Your task to perform on an android device: Open calendar and show me the first week of next month Image 0: 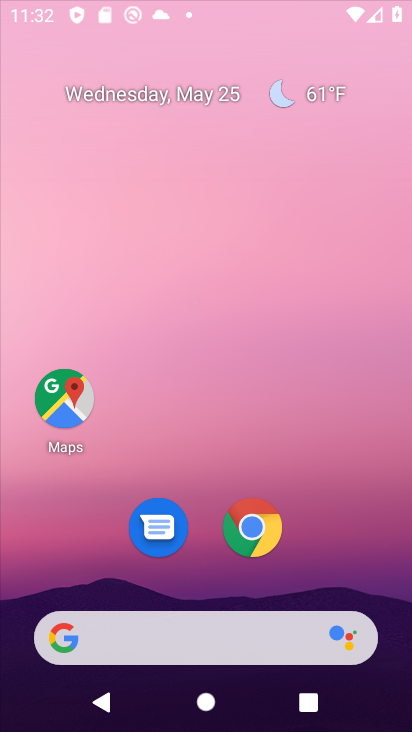
Step 0: click (201, 284)
Your task to perform on an android device: Open calendar and show me the first week of next month Image 1: 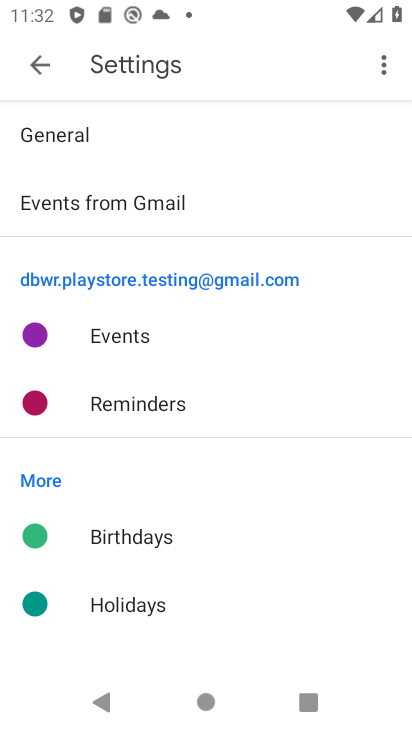
Step 1: click (40, 50)
Your task to perform on an android device: Open calendar and show me the first week of next month Image 2: 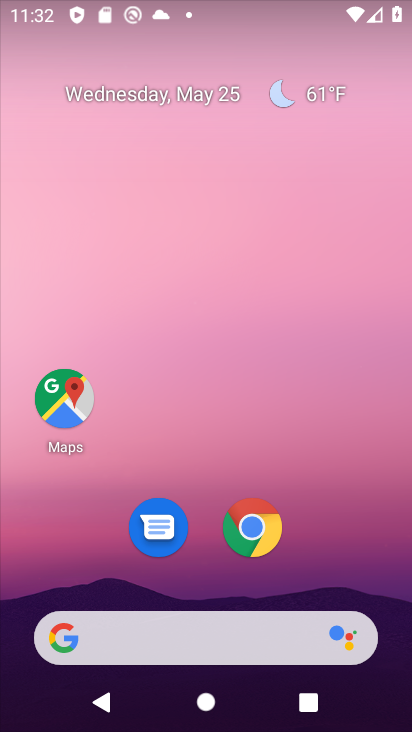
Step 2: drag from (267, 704) to (248, 257)
Your task to perform on an android device: Open calendar and show me the first week of next month Image 3: 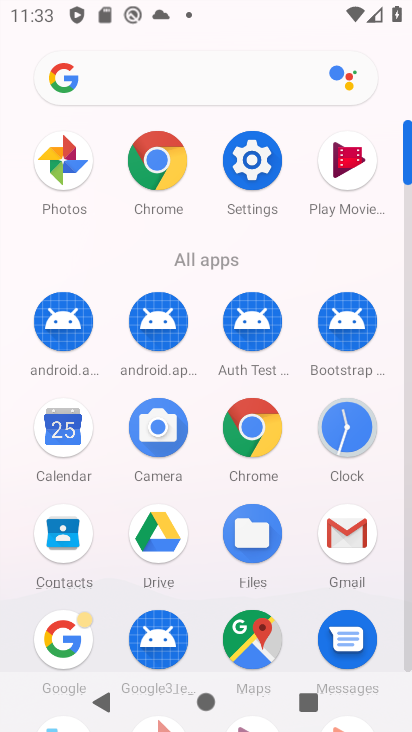
Step 3: click (82, 431)
Your task to perform on an android device: Open calendar and show me the first week of next month Image 4: 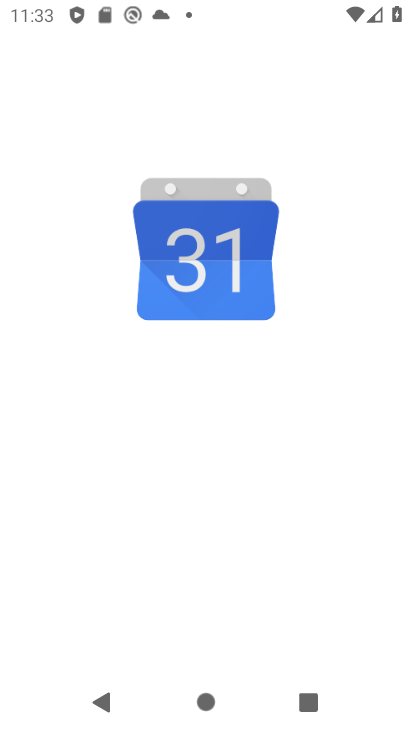
Step 4: click (80, 428)
Your task to perform on an android device: Open calendar and show me the first week of next month Image 5: 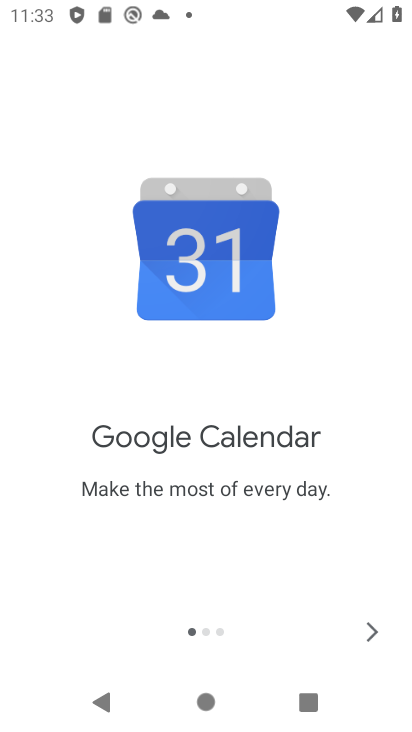
Step 5: click (79, 428)
Your task to perform on an android device: Open calendar and show me the first week of next month Image 6: 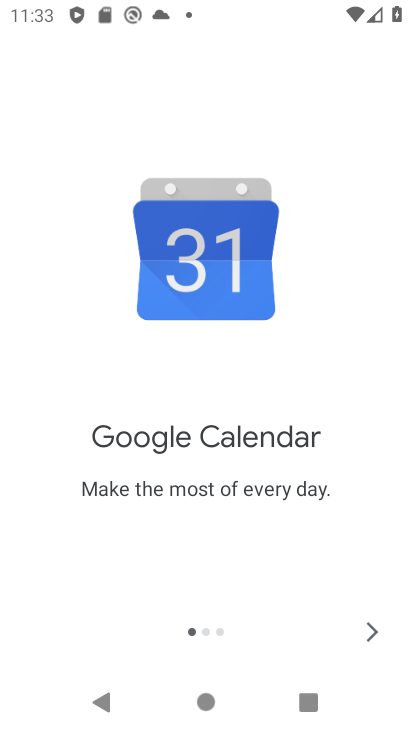
Step 6: click (72, 427)
Your task to perform on an android device: Open calendar and show me the first week of next month Image 7: 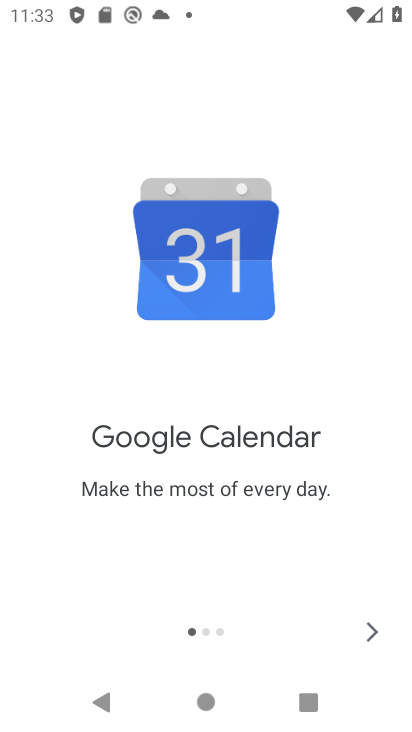
Step 7: click (69, 426)
Your task to perform on an android device: Open calendar and show me the first week of next month Image 8: 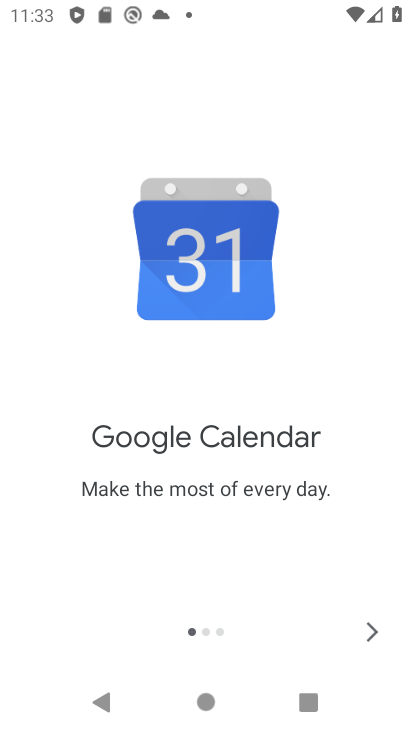
Step 8: click (371, 631)
Your task to perform on an android device: Open calendar and show me the first week of next month Image 9: 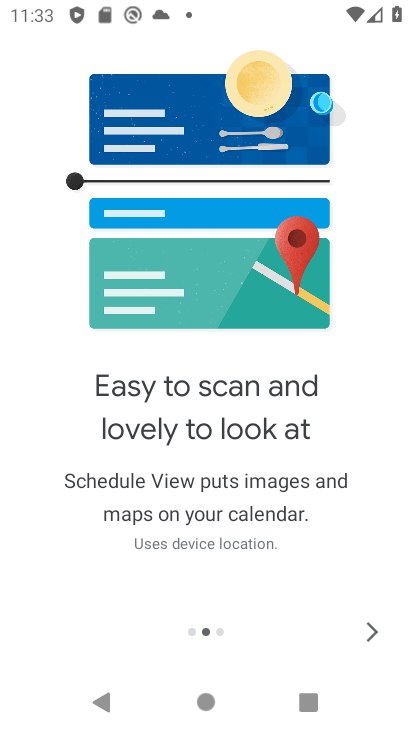
Step 9: click (370, 629)
Your task to perform on an android device: Open calendar and show me the first week of next month Image 10: 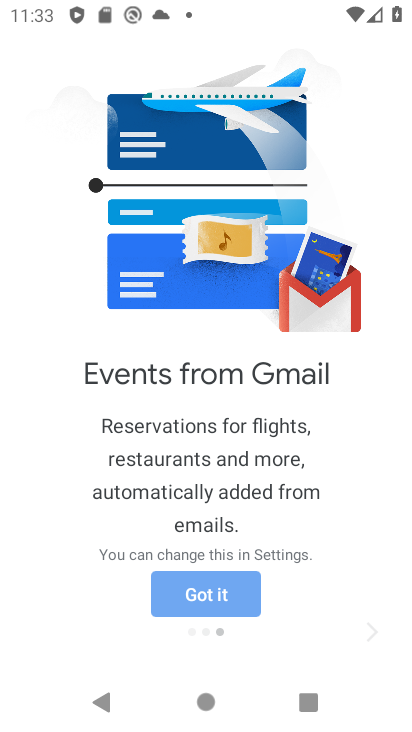
Step 10: click (377, 620)
Your task to perform on an android device: Open calendar and show me the first week of next month Image 11: 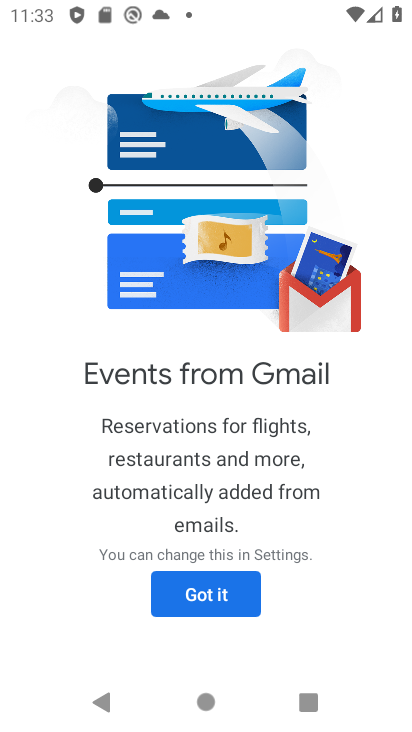
Step 11: click (369, 625)
Your task to perform on an android device: Open calendar and show me the first week of next month Image 12: 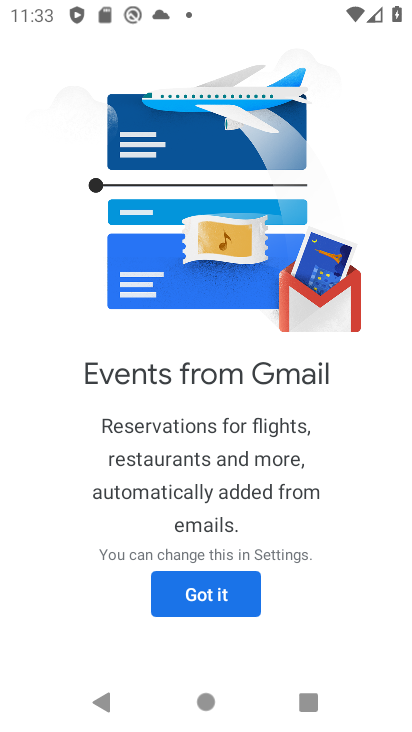
Step 12: click (235, 601)
Your task to perform on an android device: Open calendar and show me the first week of next month Image 13: 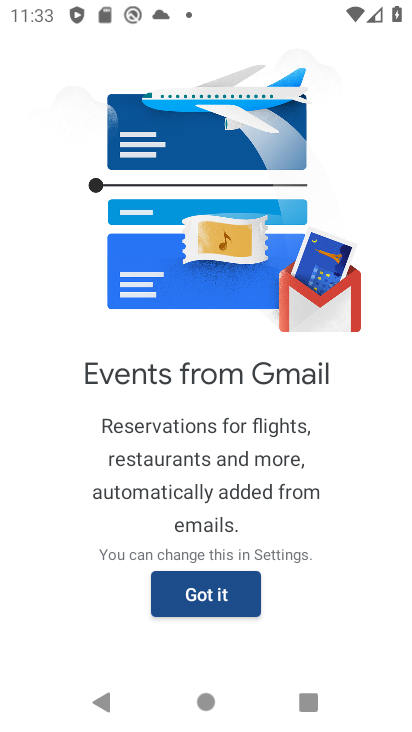
Step 13: click (225, 602)
Your task to perform on an android device: Open calendar and show me the first week of next month Image 14: 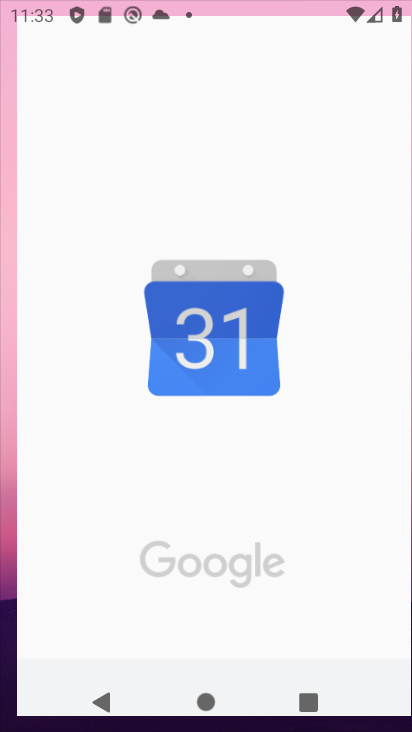
Step 14: click (224, 599)
Your task to perform on an android device: Open calendar and show me the first week of next month Image 15: 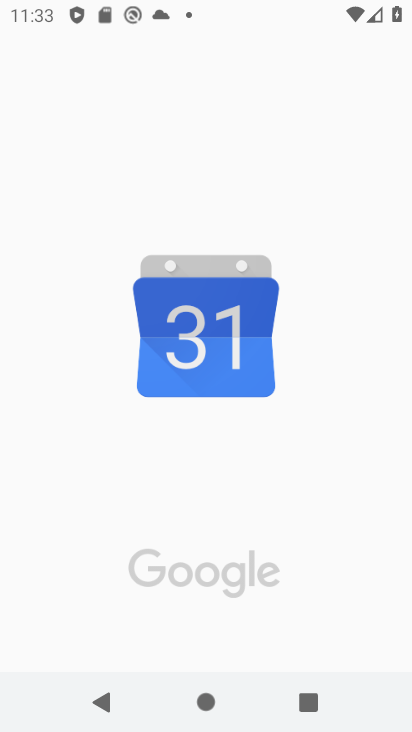
Step 15: click (208, 587)
Your task to perform on an android device: Open calendar and show me the first week of next month Image 16: 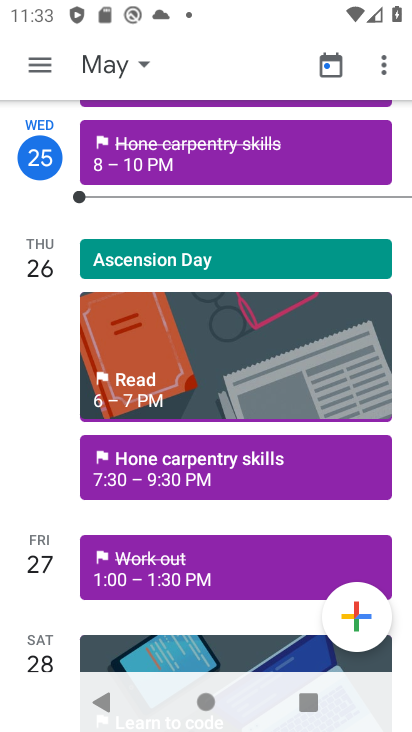
Step 16: click (144, 58)
Your task to perform on an android device: Open calendar and show me the first week of next month Image 17: 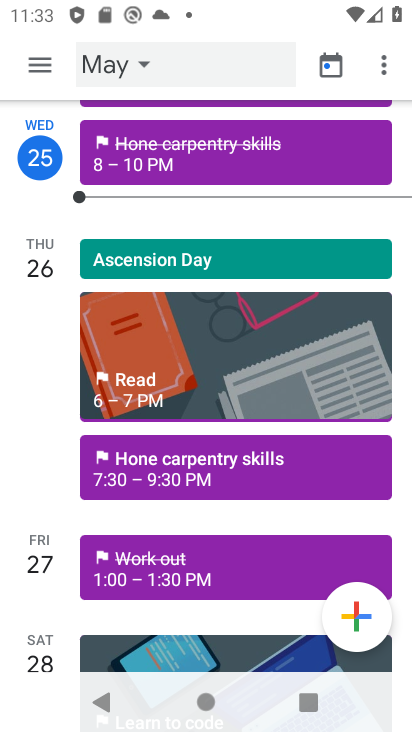
Step 17: click (156, 71)
Your task to perform on an android device: Open calendar and show me the first week of next month Image 18: 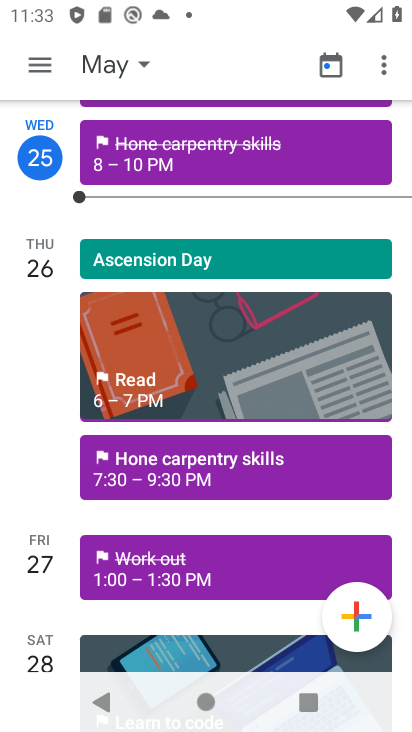
Step 18: click (125, 56)
Your task to perform on an android device: Open calendar and show me the first week of next month Image 19: 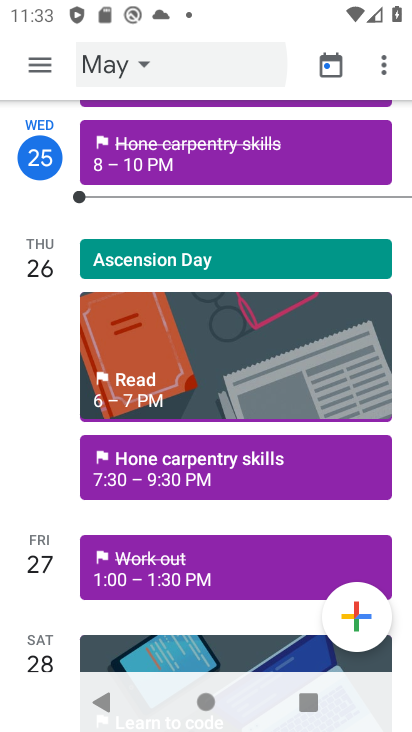
Step 19: click (140, 66)
Your task to perform on an android device: Open calendar and show me the first week of next month Image 20: 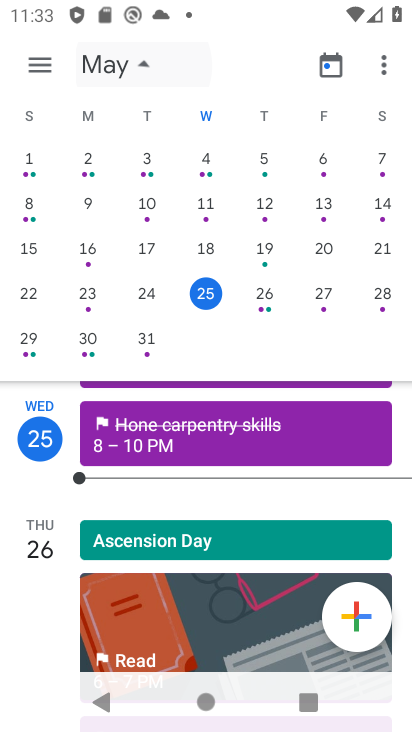
Step 20: click (140, 66)
Your task to perform on an android device: Open calendar and show me the first week of next month Image 21: 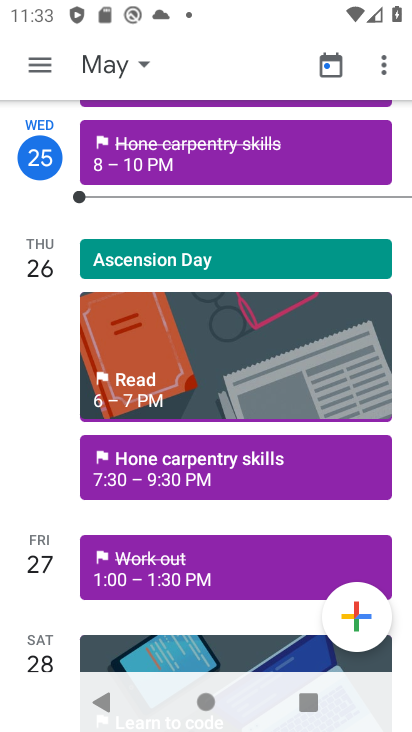
Step 21: click (136, 65)
Your task to perform on an android device: Open calendar and show me the first week of next month Image 22: 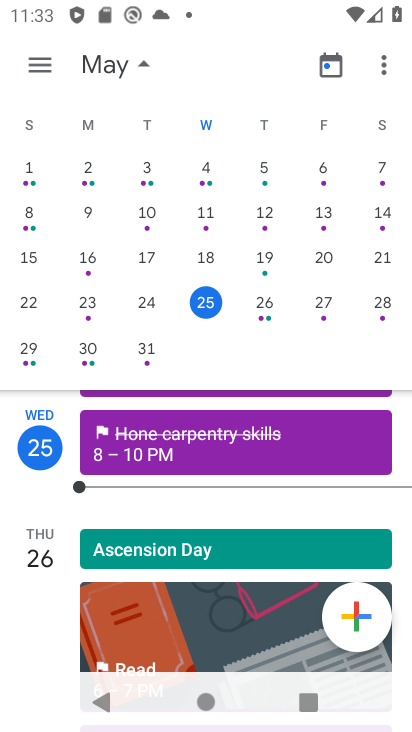
Step 22: click (4, 284)
Your task to perform on an android device: Open calendar and show me the first week of next month Image 23: 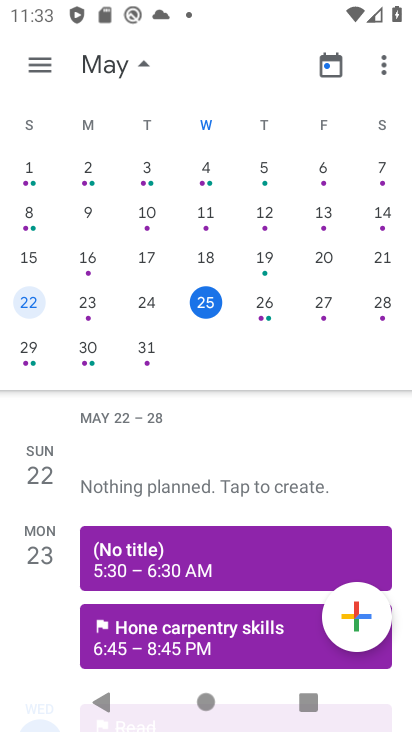
Step 23: drag from (297, 265) to (22, 261)
Your task to perform on an android device: Open calendar and show me the first week of next month Image 24: 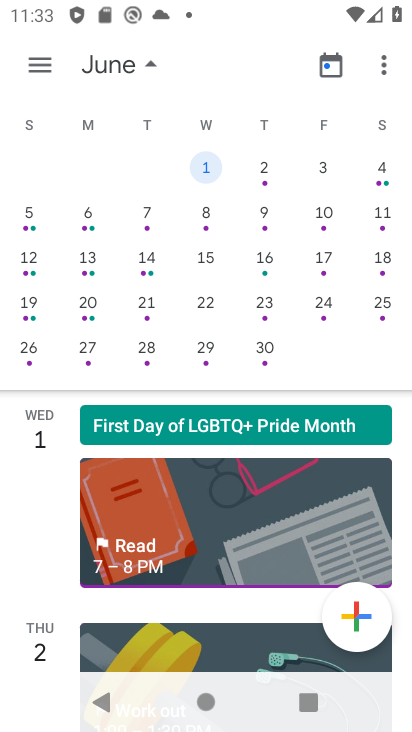
Step 24: drag from (309, 296) to (25, 268)
Your task to perform on an android device: Open calendar and show me the first week of next month Image 25: 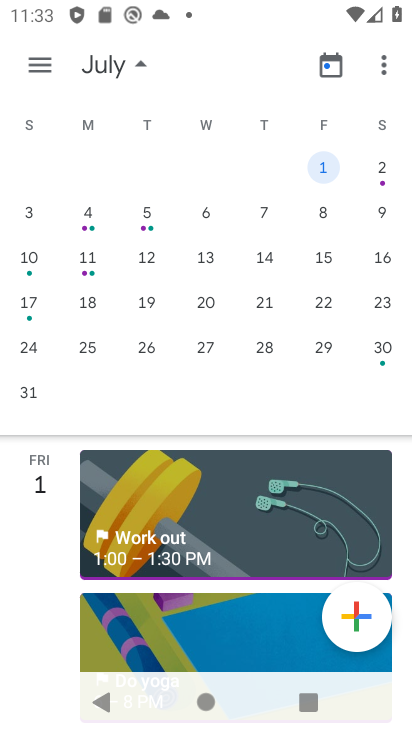
Step 25: click (401, 165)
Your task to perform on an android device: Open calendar and show me the first week of next month Image 26: 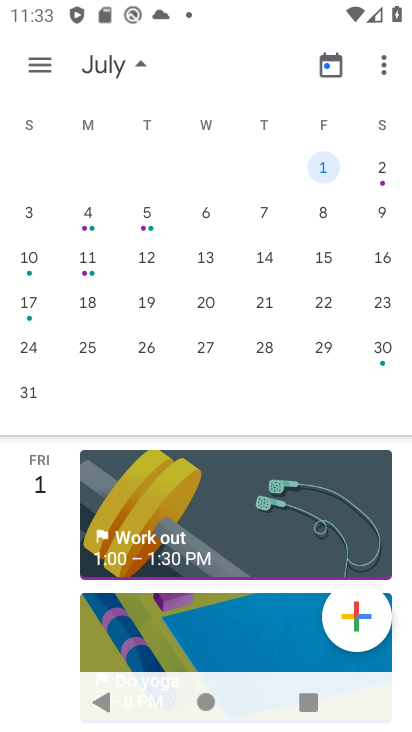
Step 26: task complete